Your task to perform on an android device: Open Yahoo.com Image 0: 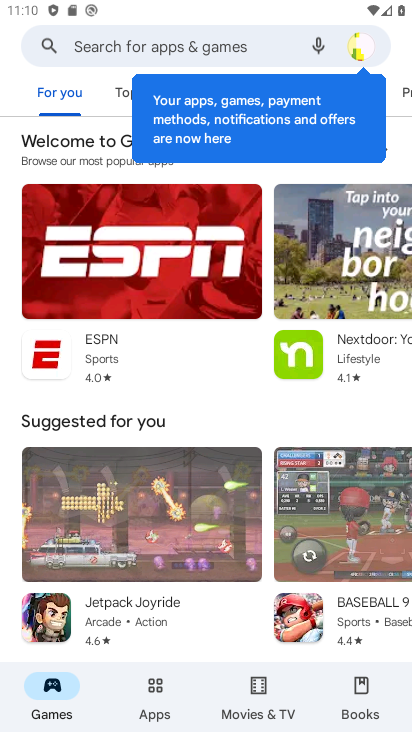
Step 0: press home button
Your task to perform on an android device: Open Yahoo.com Image 1: 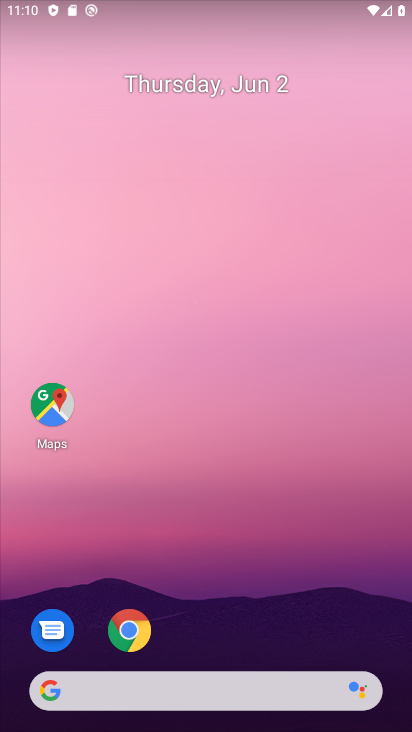
Step 1: click (132, 627)
Your task to perform on an android device: Open Yahoo.com Image 2: 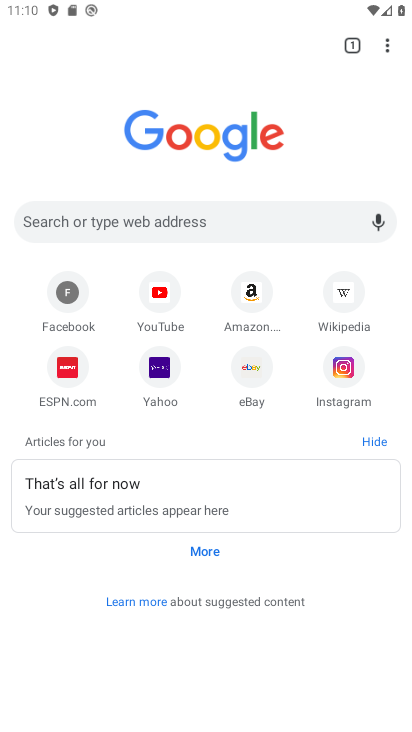
Step 2: click (145, 230)
Your task to perform on an android device: Open Yahoo.com Image 3: 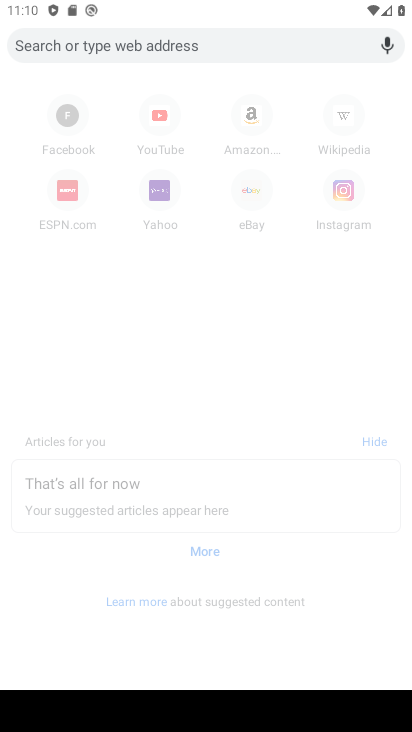
Step 3: click (145, 361)
Your task to perform on an android device: Open Yahoo.com Image 4: 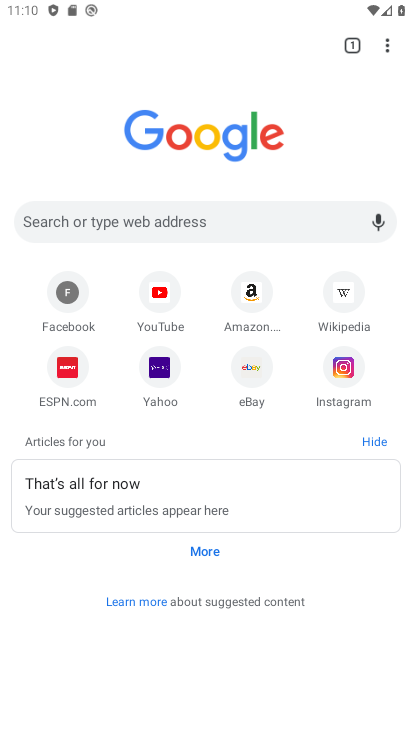
Step 4: click (160, 386)
Your task to perform on an android device: Open Yahoo.com Image 5: 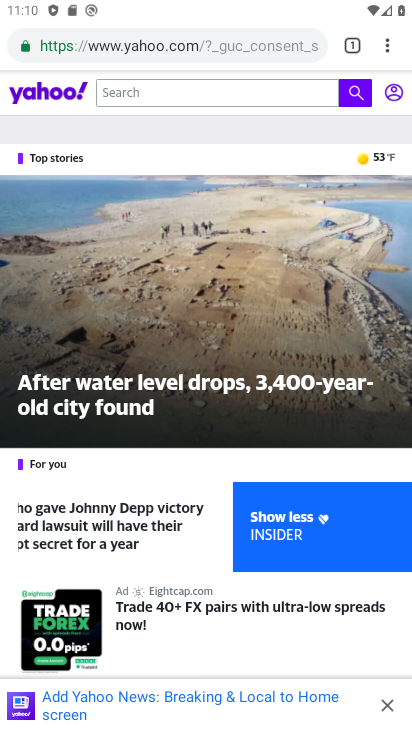
Step 5: task complete